Your task to perform on an android device: Go to internet settings Image 0: 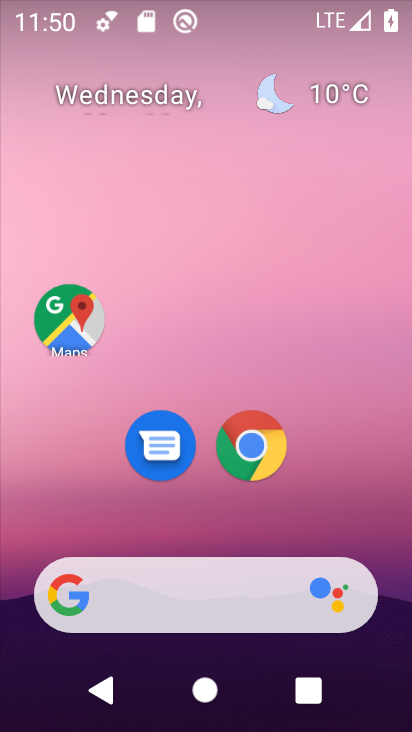
Step 0: drag from (154, 506) to (272, 35)
Your task to perform on an android device: Go to internet settings Image 1: 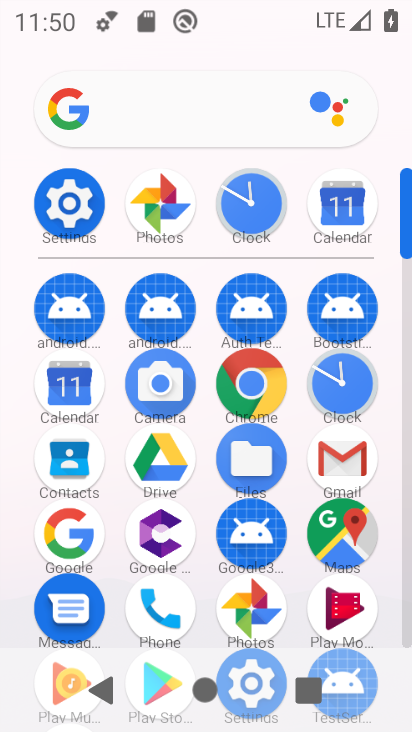
Step 1: click (66, 199)
Your task to perform on an android device: Go to internet settings Image 2: 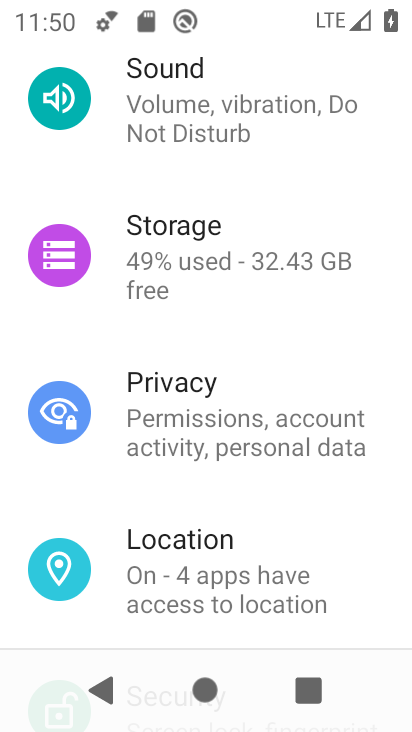
Step 2: drag from (250, 133) to (228, 639)
Your task to perform on an android device: Go to internet settings Image 3: 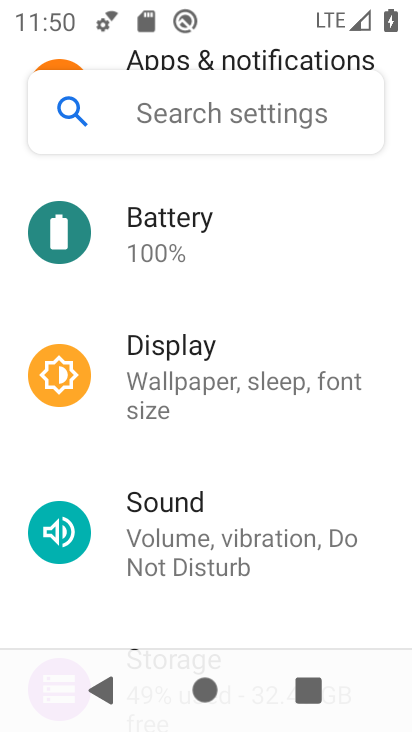
Step 3: drag from (224, 247) to (222, 619)
Your task to perform on an android device: Go to internet settings Image 4: 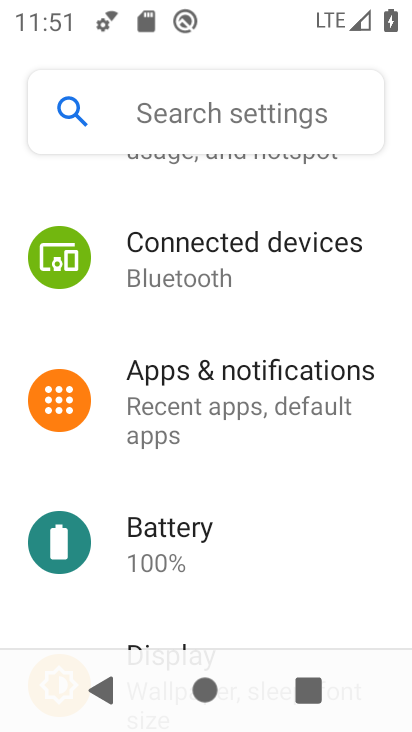
Step 4: drag from (246, 266) to (213, 676)
Your task to perform on an android device: Go to internet settings Image 5: 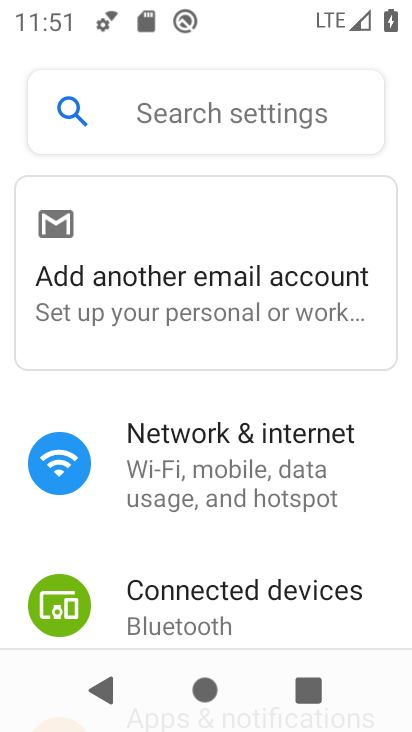
Step 5: click (200, 455)
Your task to perform on an android device: Go to internet settings Image 6: 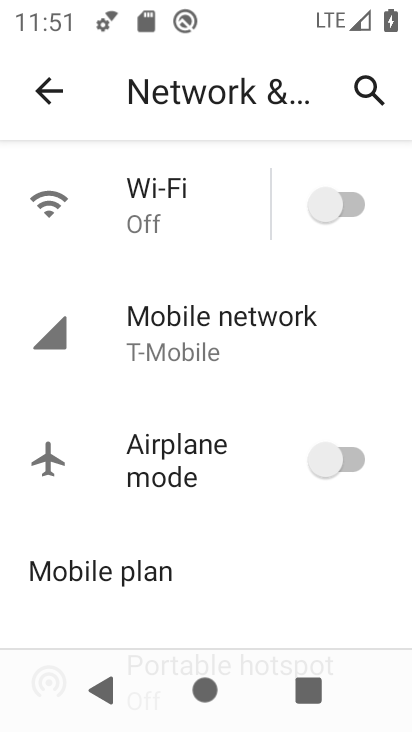
Step 6: task complete